Your task to perform on an android device: turn on javascript in the chrome app Image 0: 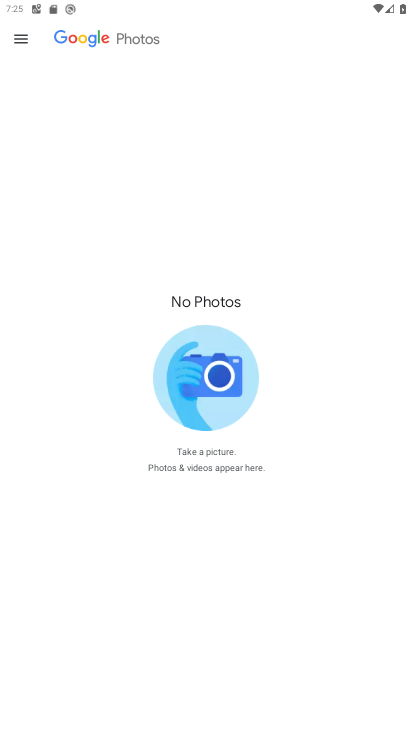
Step 0: press home button
Your task to perform on an android device: turn on javascript in the chrome app Image 1: 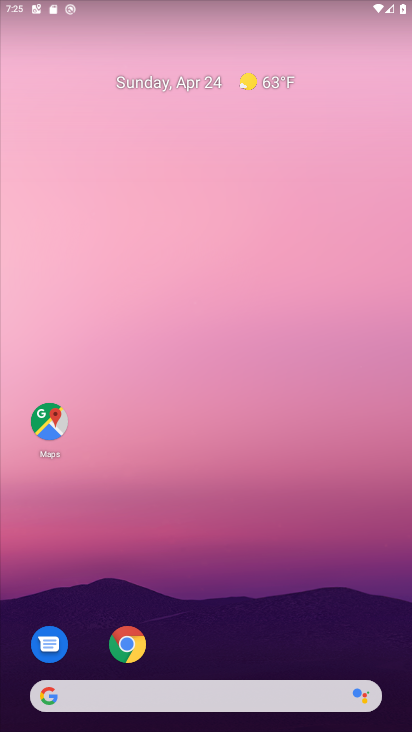
Step 1: click (127, 644)
Your task to perform on an android device: turn on javascript in the chrome app Image 2: 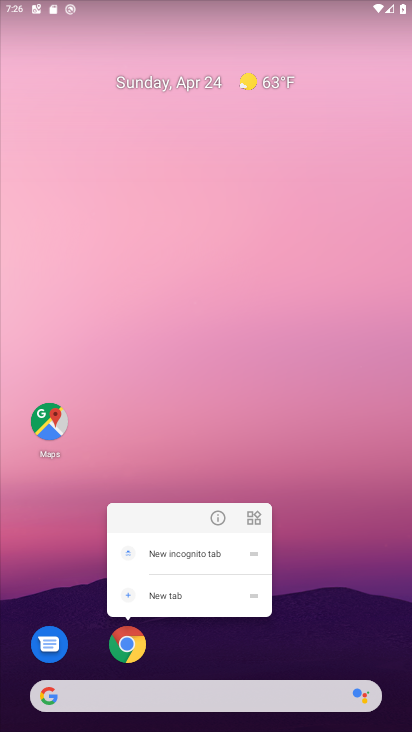
Step 2: click (343, 378)
Your task to perform on an android device: turn on javascript in the chrome app Image 3: 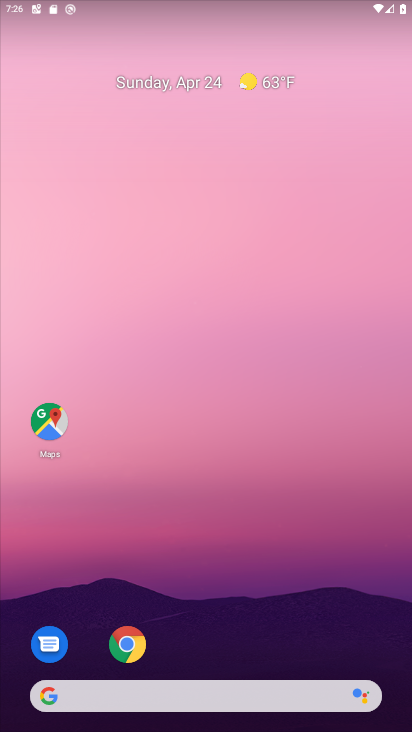
Step 3: drag from (274, 648) to (274, 81)
Your task to perform on an android device: turn on javascript in the chrome app Image 4: 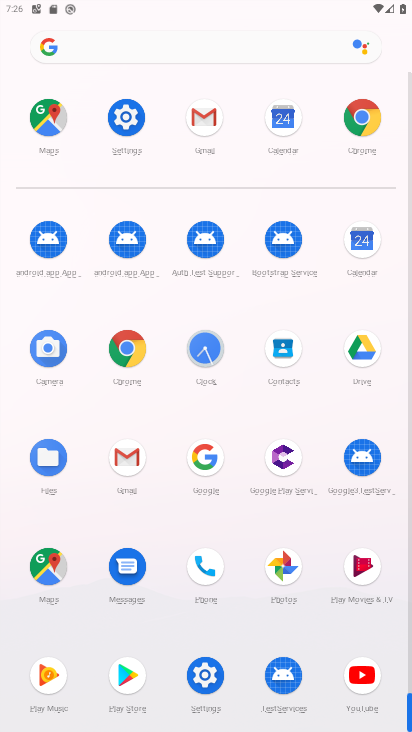
Step 4: click (125, 344)
Your task to perform on an android device: turn on javascript in the chrome app Image 5: 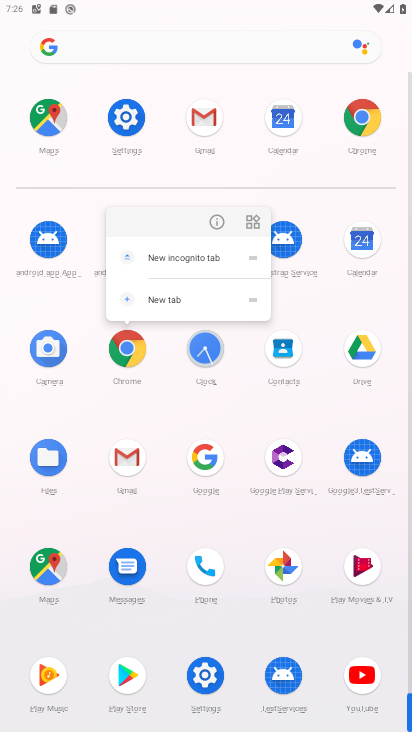
Step 5: click (122, 350)
Your task to perform on an android device: turn on javascript in the chrome app Image 6: 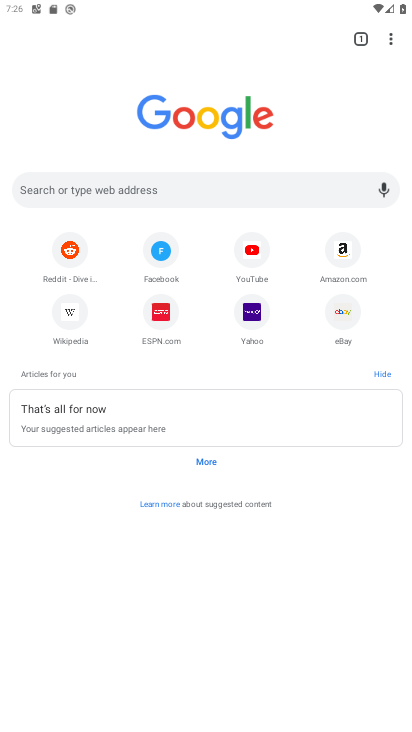
Step 6: click (388, 34)
Your task to perform on an android device: turn on javascript in the chrome app Image 7: 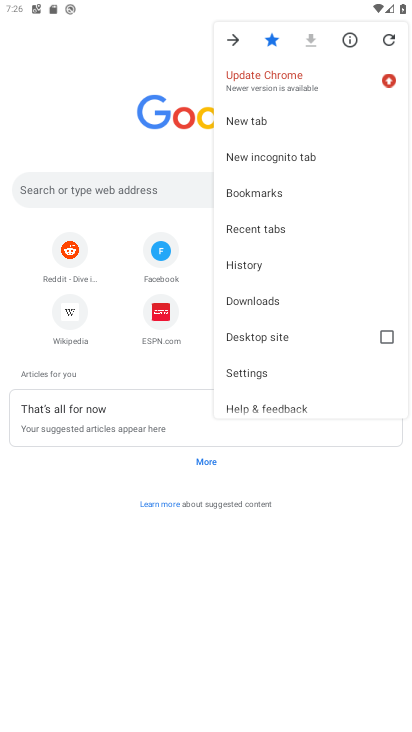
Step 7: click (285, 372)
Your task to perform on an android device: turn on javascript in the chrome app Image 8: 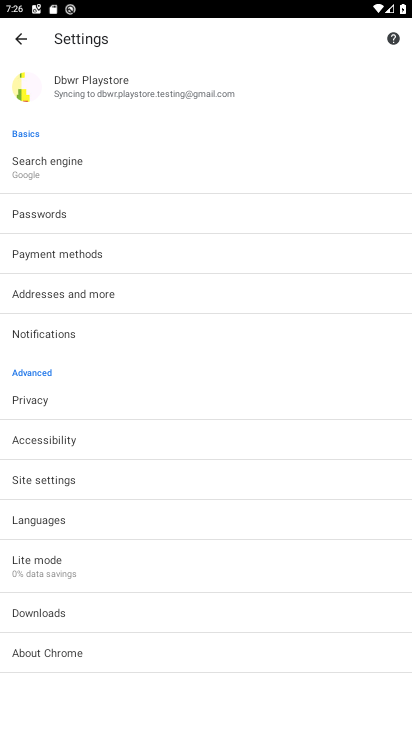
Step 8: click (76, 476)
Your task to perform on an android device: turn on javascript in the chrome app Image 9: 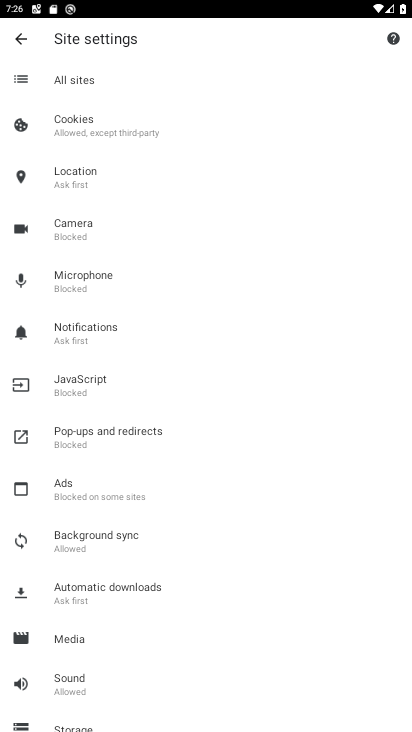
Step 9: click (101, 384)
Your task to perform on an android device: turn on javascript in the chrome app Image 10: 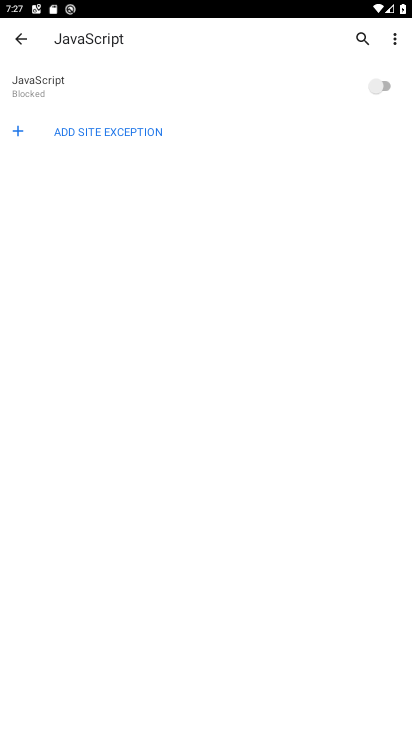
Step 10: click (383, 87)
Your task to perform on an android device: turn on javascript in the chrome app Image 11: 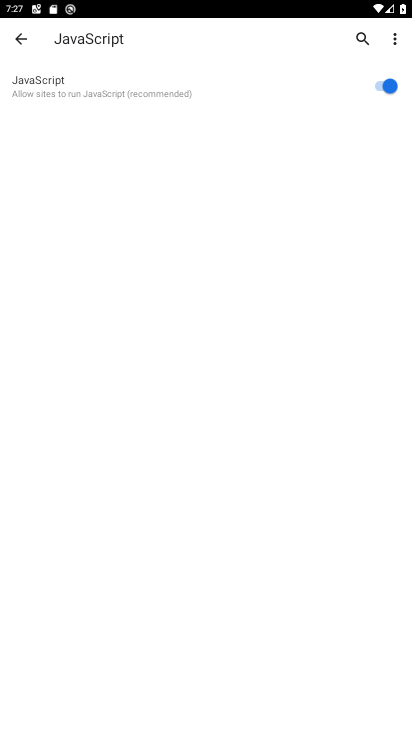
Step 11: task complete